Your task to perform on an android device: toggle location history Image 0: 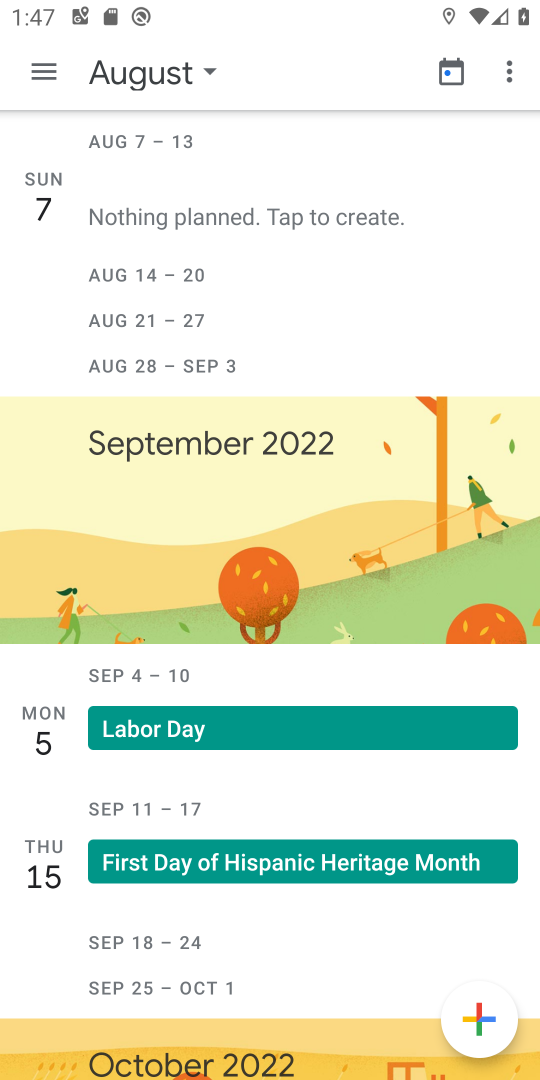
Step 0: press home button
Your task to perform on an android device: toggle location history Image 1: 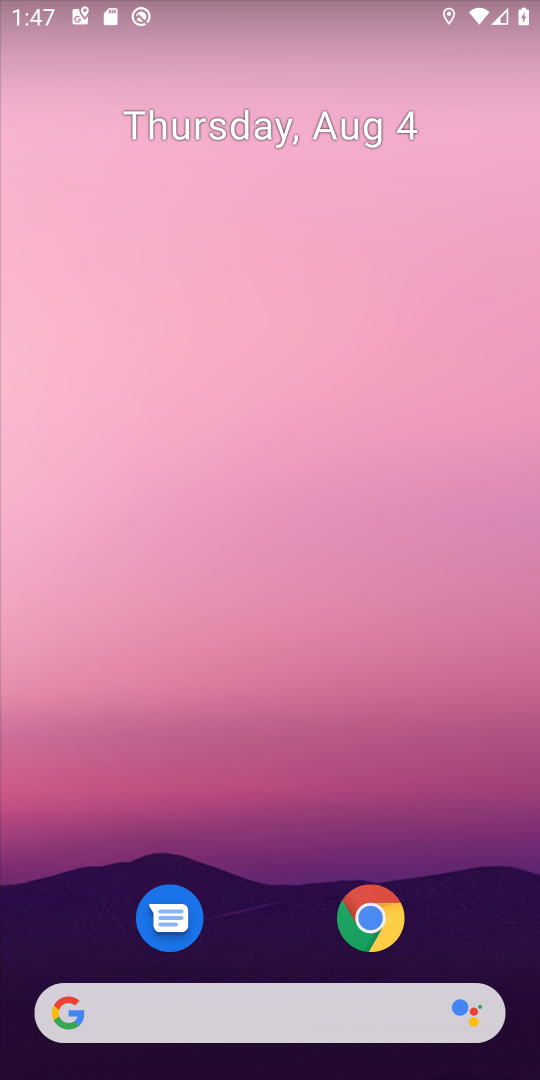
Step 1: drag from (289, 935) to (291, 363)
Your task to perform on an android device: toggle location history Image 2: 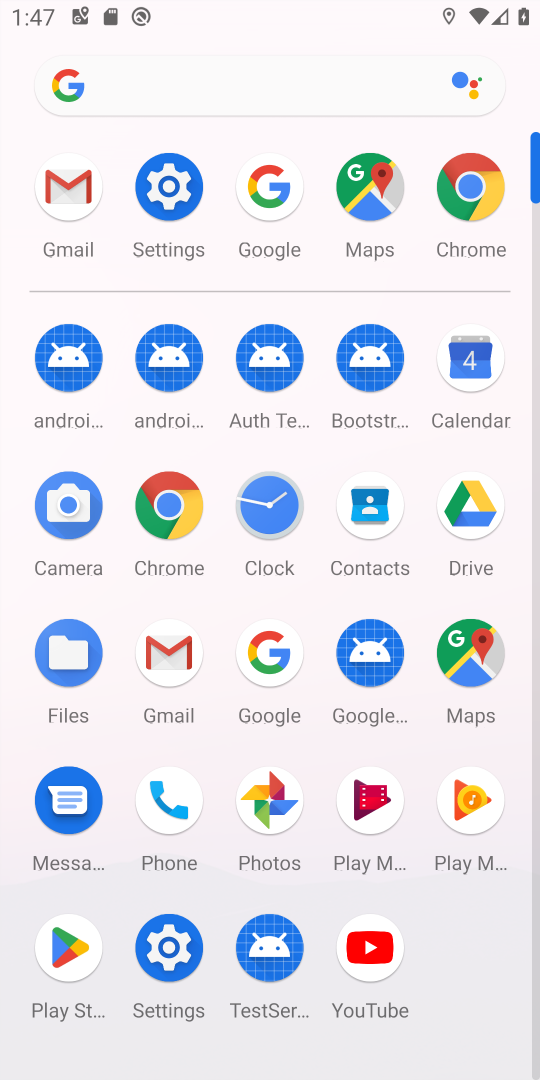
Step 2: click (186, 198)
Your task to perform on an android device: toggle location history Image 3: 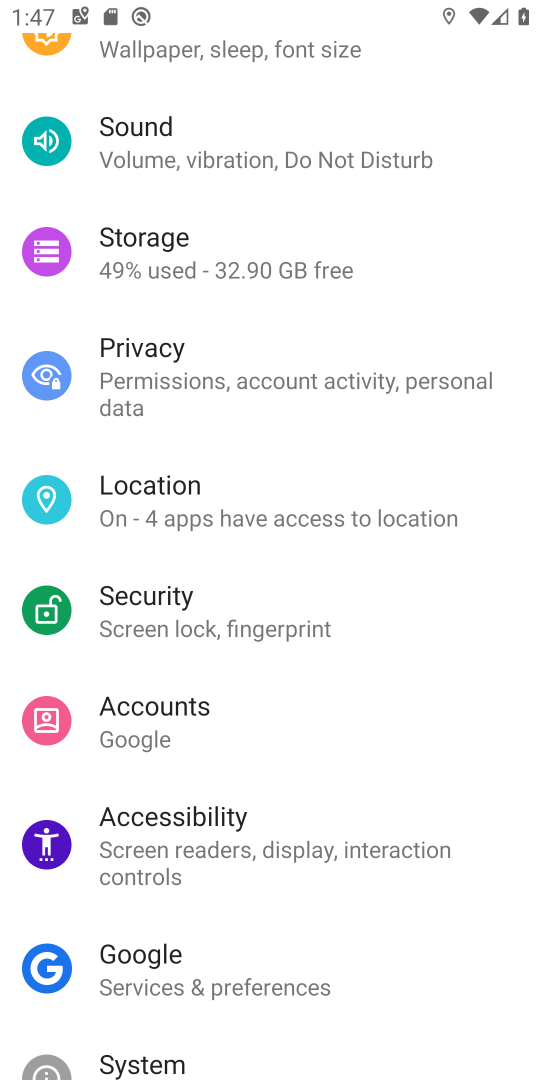
Step 3: click (230, 518)
Your task to perform on an android device: toggle location history Image 4: 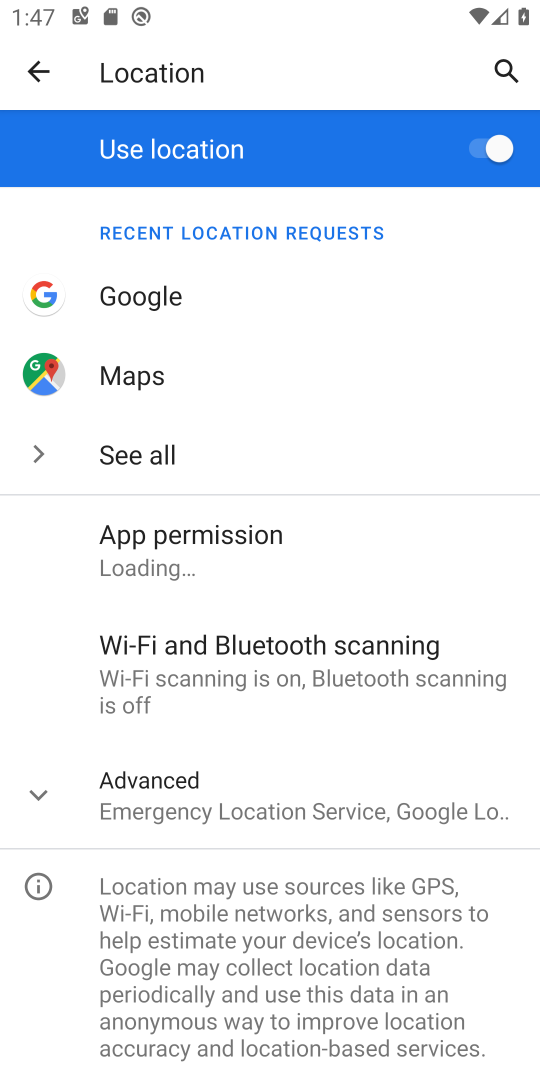
Step 4: click (245, 785)
Your task to perform on an android device: toggle location history Image 5: 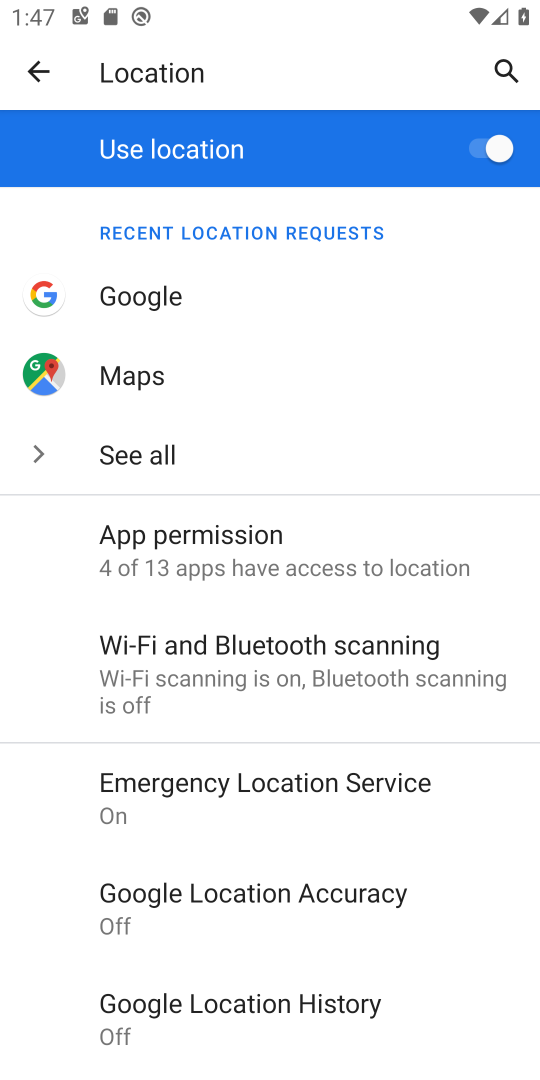
Step 5: click (318, 983)
Your task to perform on an android device: toggle location history Image 6: 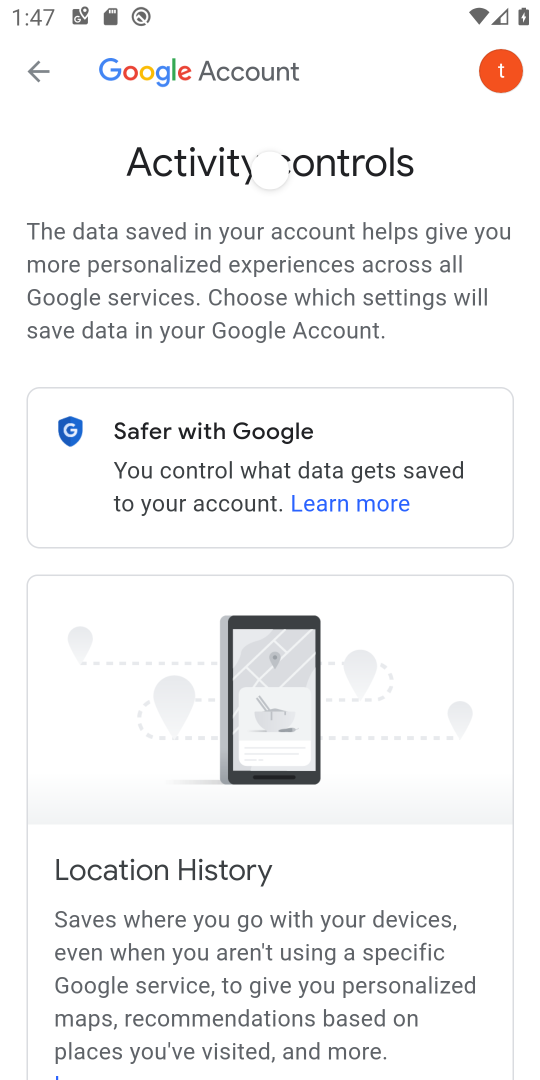
Step 6: drag from (371, 822) to (346, 395)
Your task to perform on an android device: toggle location history Image 7: 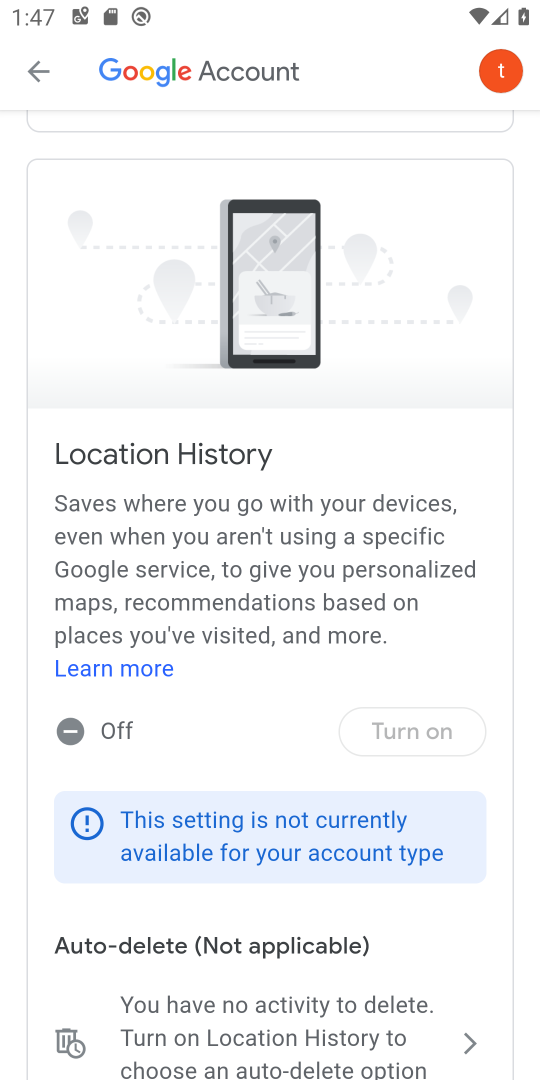
Step 7: click (403, 868)
Your task to perform on an android device: toggle location history Image 8: 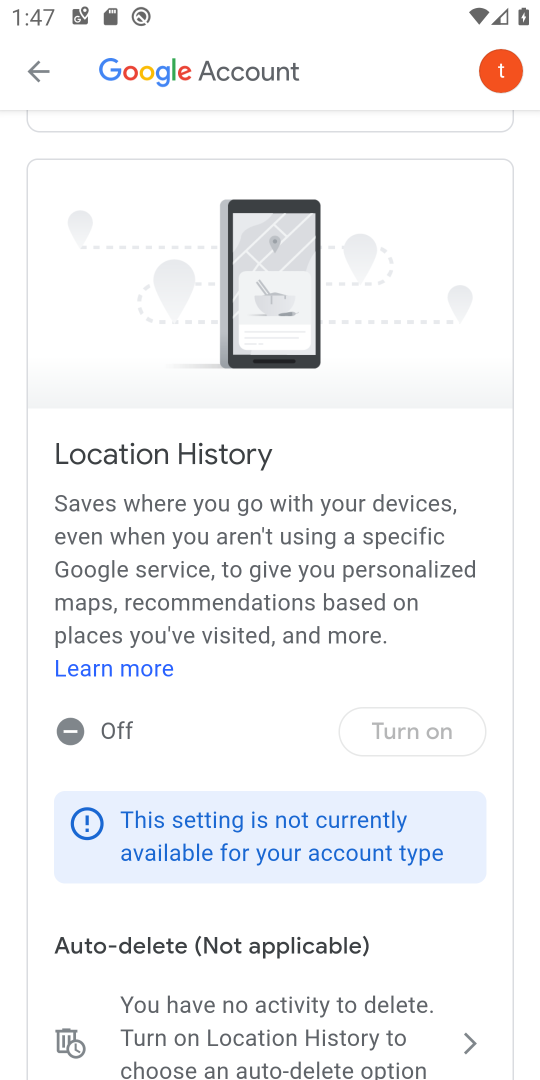
Step 8: click (363, 720)
Your task to perform on an android device: toggle location history Image 9: 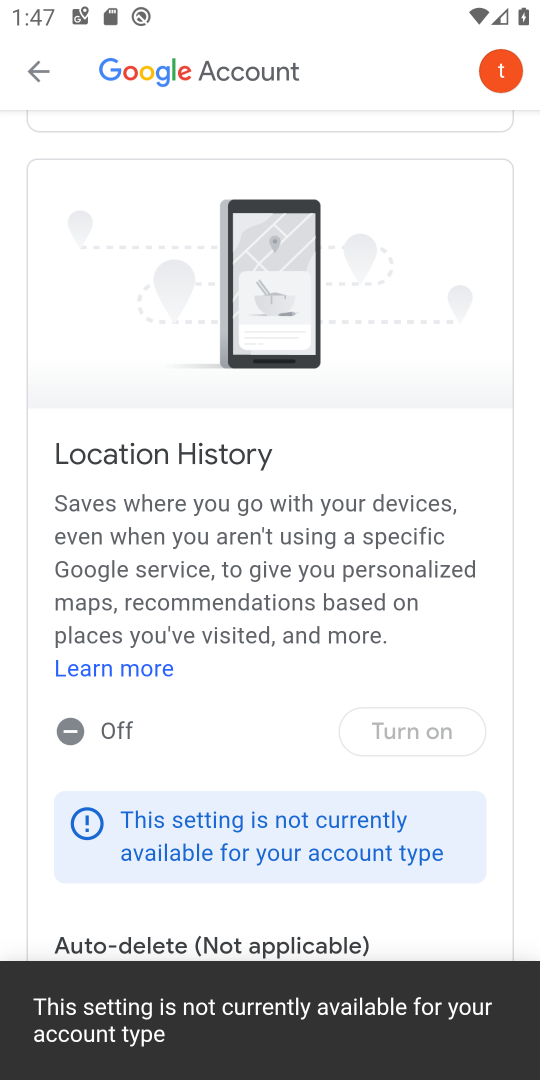
Step 9: click (74, 719)
Your task to perform on an android device: toggle location history Image 10: 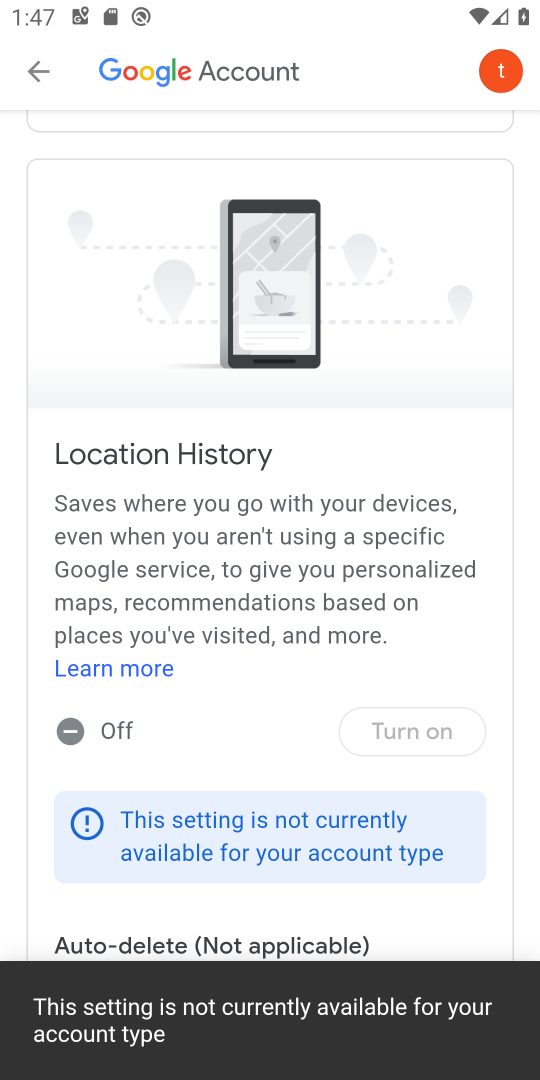
Step 10: click (421, 726)
Your task to perform on an android device: toggle location history Image 11: 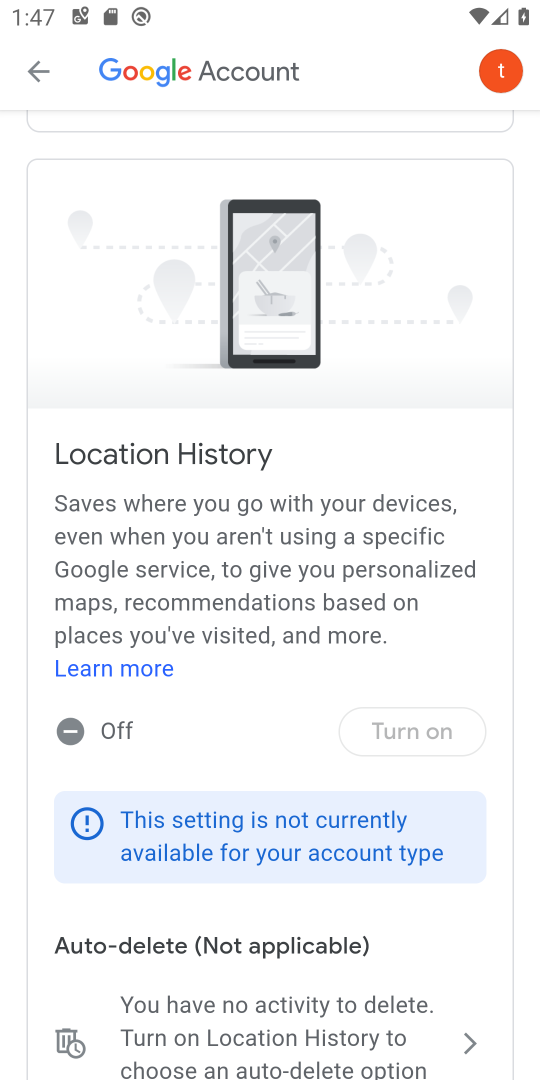
Step 11: task complete